Your task to perform on an android device: delete browsing data in the chrome app Image 0: 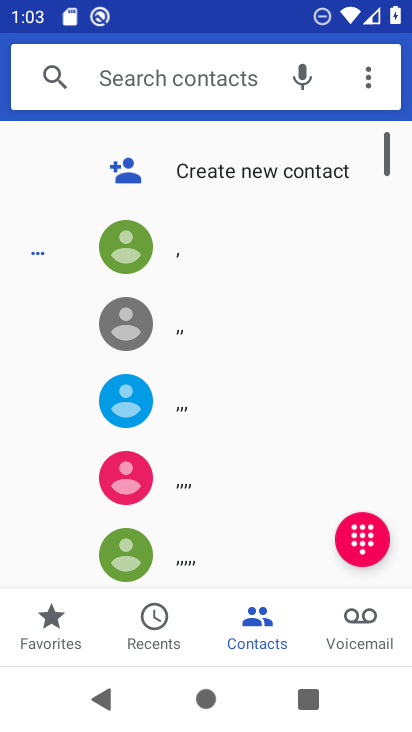
Step 0: press home button
Your task to perform on an android device: delete browsing data in the chrome app Image 1: 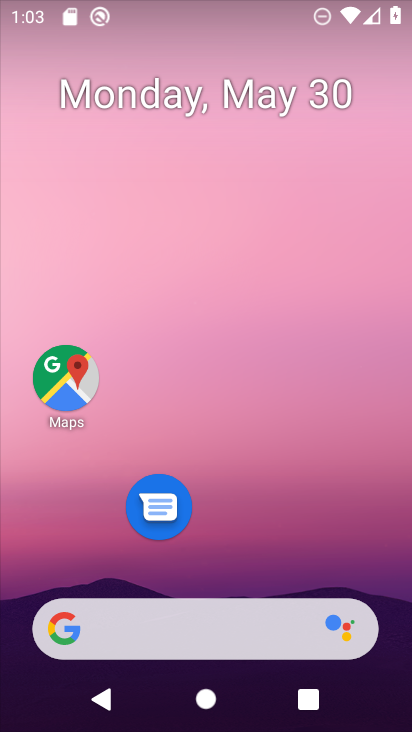
Step 1: drag from (291, 544) to (269, 81)
Your task to perform on an android device: delete browsing data in the chrome app Image 2: 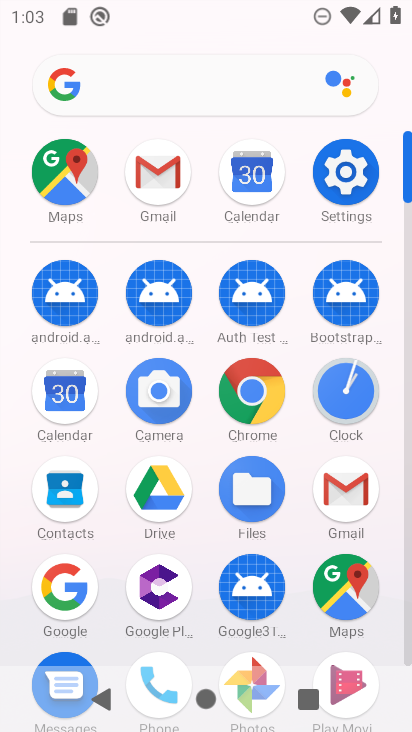
Step 2: click (263, 395)
Your task to perform on an android device: delete browsing data in the chrome app Image 3: 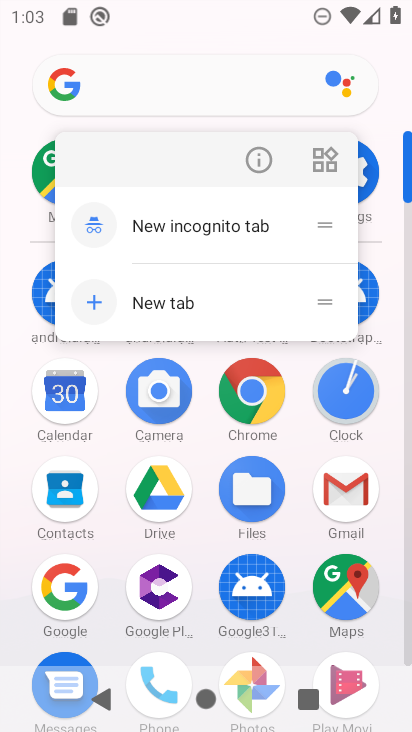
Step 3: click (245, 395)
Your task to perform on an android device: delete browsing data in the chrome app Image 4: 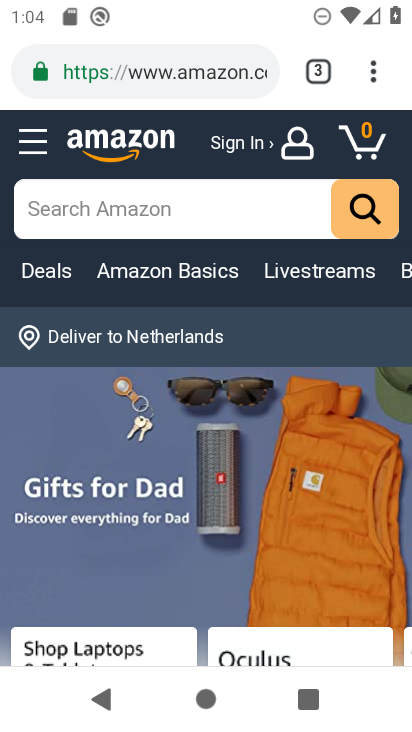
Step 4: drag from (369, 67) to (164, 516)
Your task to perform on an android device: delete browsing data in the chrome app Image 5: 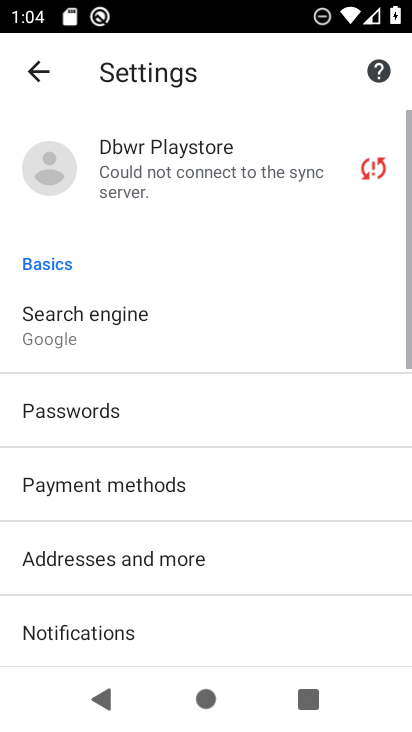
Step 5: drag from (272, 585) to (311, 182)
Your task to perform on an android device: delete browsing data in the chrome app Image 6: 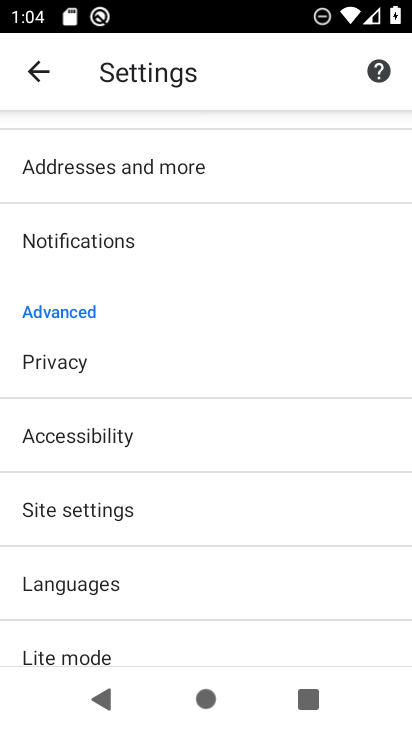
Step 6: click (66, 368)
Your task to perform on an android device: delete browsing data in the chrome app Image 7: 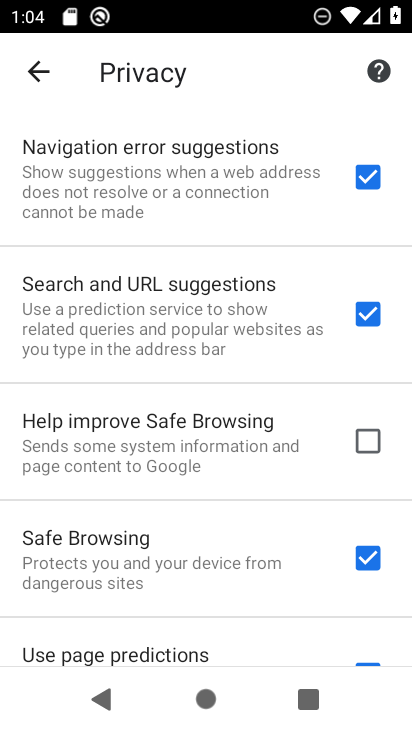
Step 7: drag from (277, 600) to (307, 216)
Your task to perform on an android device: delete browsing data in the chrome app Image 8: 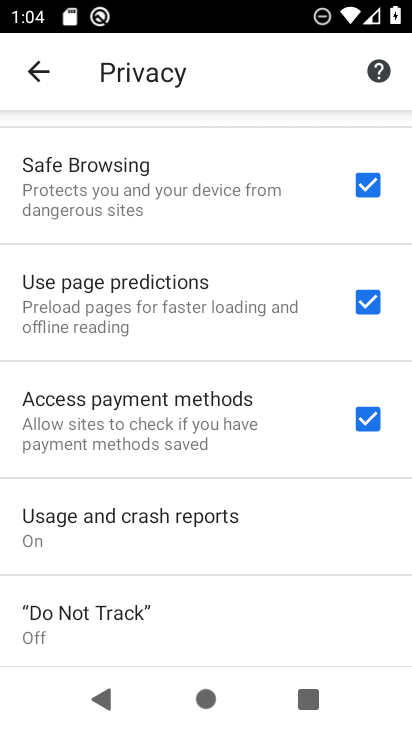
Step 8: drag from (272, 536) to (304, 185)
Your task to perform on an android device: delete browsing data in the chrome app Image 9: 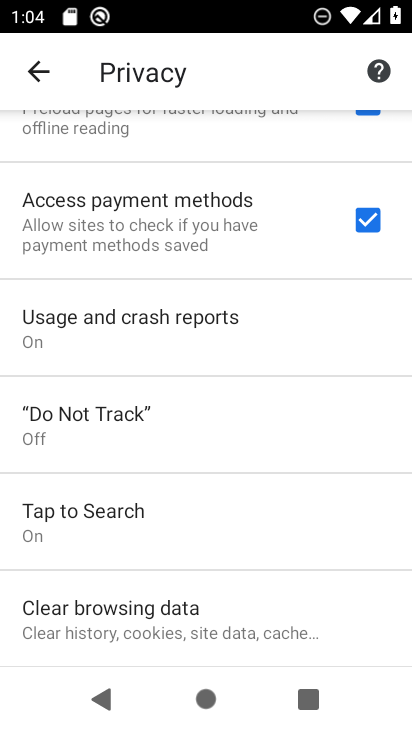
Step 9: click (139, 618)
Your task to perform on an android device: delete browsing data in the chrome app Image 10: 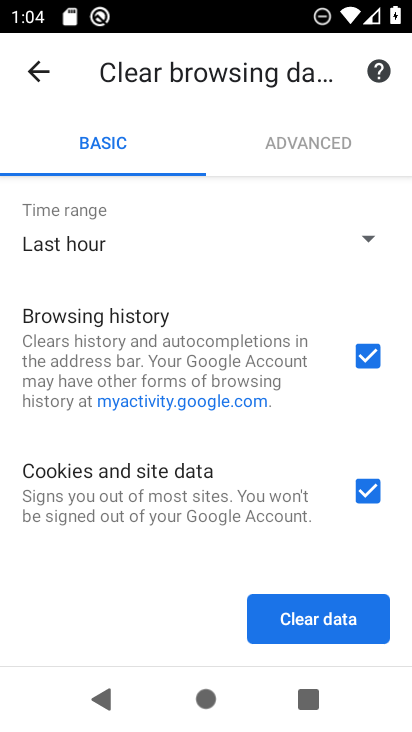
Step 10: click (312, 627)
Your task to perform on an android device: delete browsing data in the chrome app Image 11: 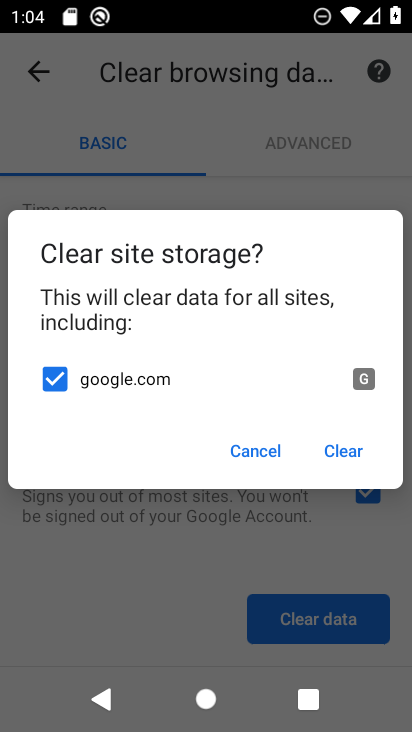
Step 11: click (345, 445)
Your task to perform on an android device: delete browsing data in the chrome app Image 12: 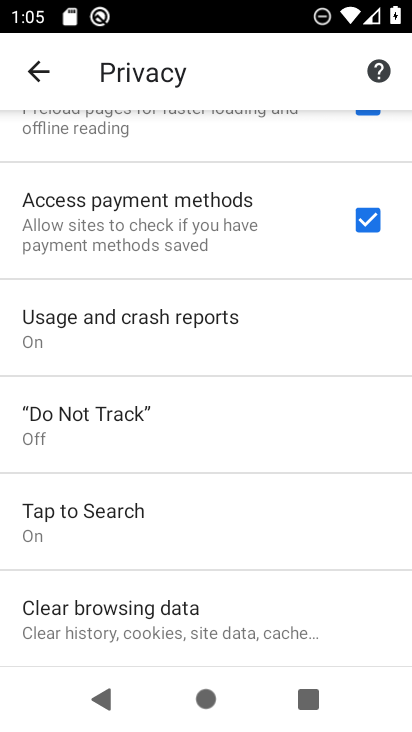
Step 12: click (201, 618)
Your task to perform on an android device: delete browsing data in the chrome app Image 13: 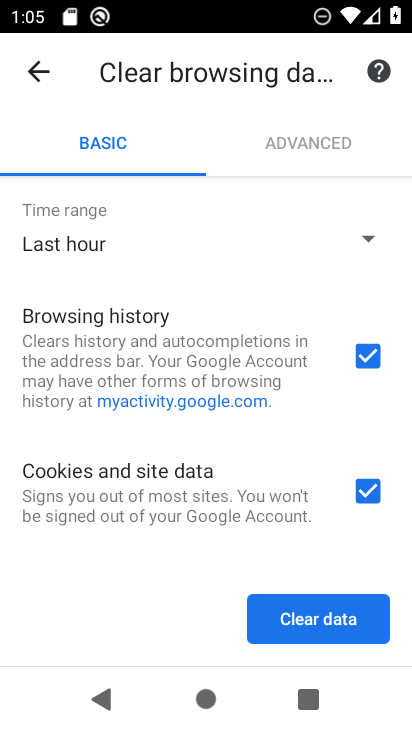
Step 13: click (346, 606)
Your task to perform on an android device: delete browsing data in the chrome app Image 14: 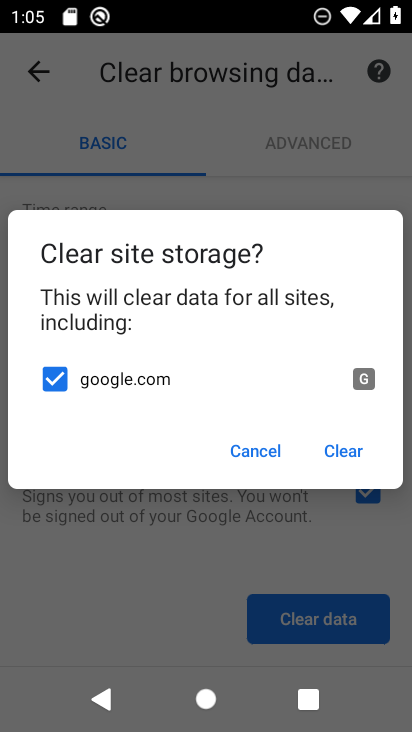
Step 14: click (348, 444)
Your task to perform on an android device: delete browsing data in the chrome app Image 15: 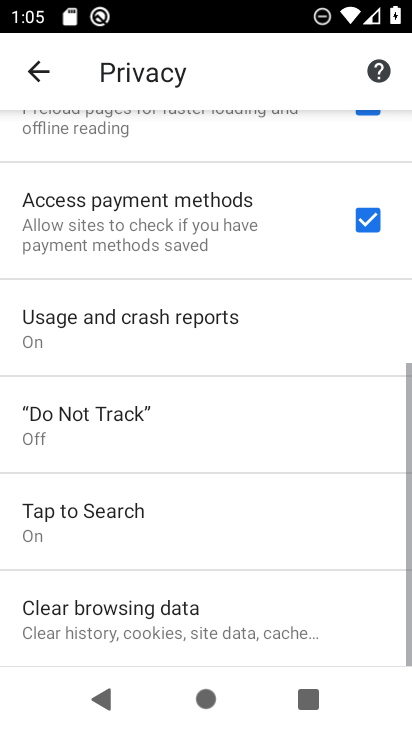
Step 15: task complete